Your task to perform on an android device: check battery use Image 0: 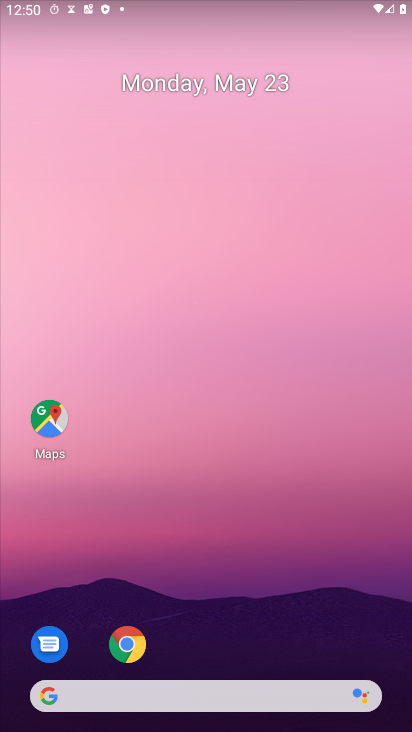
Step 0: drag from (294, 625) to (307, 36)
Your task to perform on an android device: check battery use Image 1: 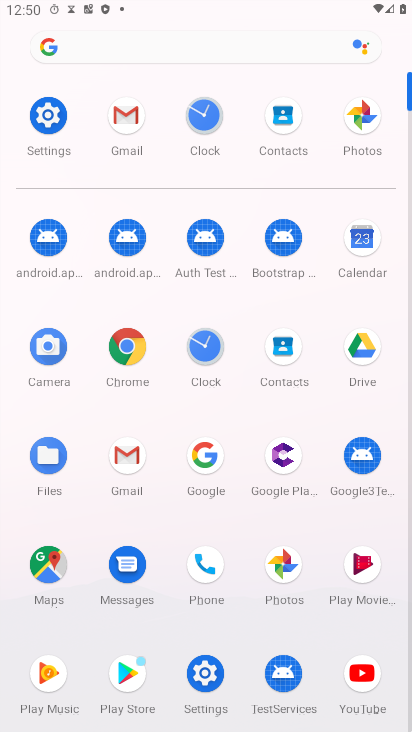
Step 1: click (52, 117)
Your task to perform on an android device: check battery use Image 2: 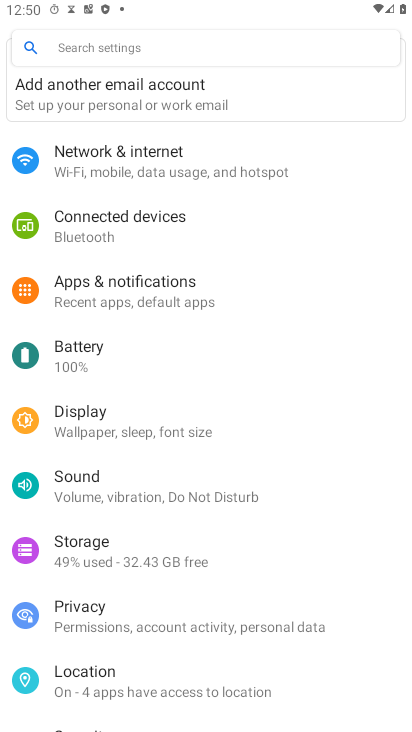
Step 2: click (79, 355)
Your task to perform on an android device: check battery use Image 3: 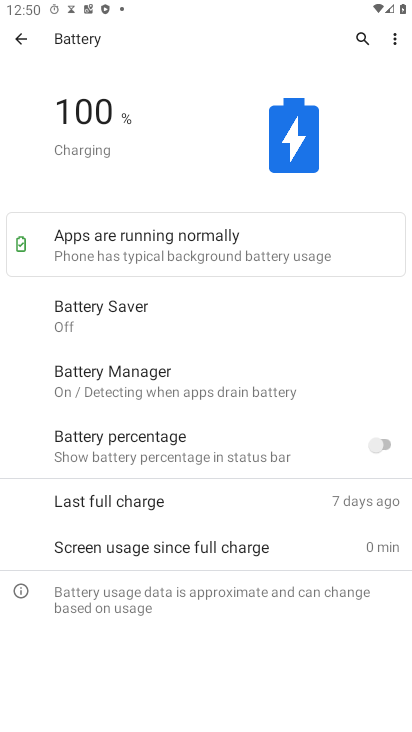
Step 3: click (400, 38)
Your task to perform on an android device: check battery use Image 4: 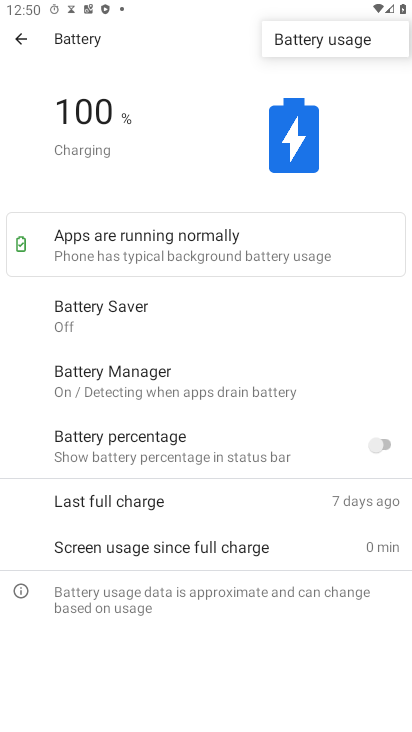
Step 4: click (340, 39)
Your task to perform on an android device: check battery use Image 5: 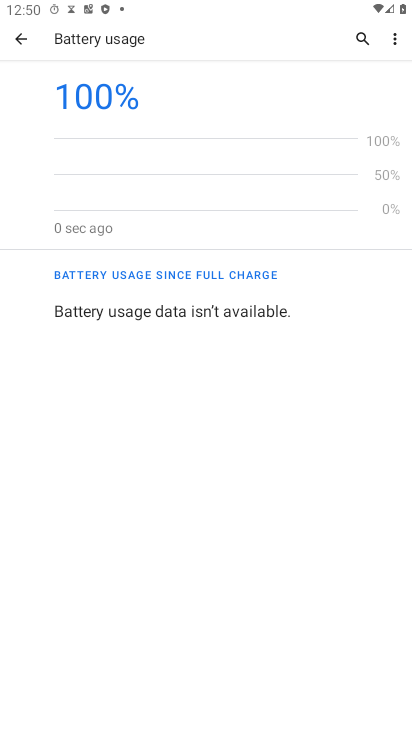
Step 5: task complete